Your task to perform on an android device: add a contact Image 0: 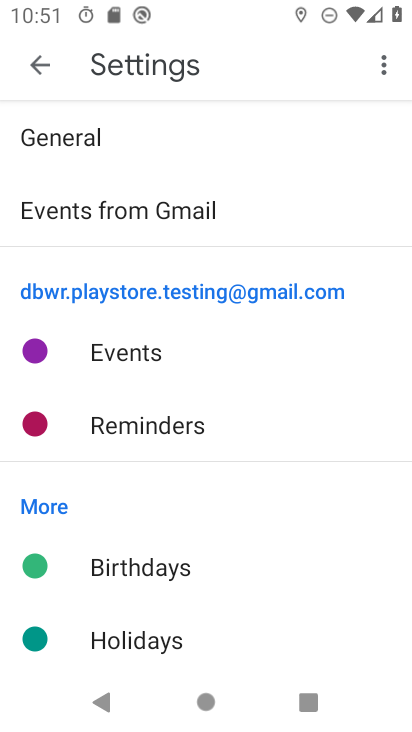
Step 0: press home button
Your task to perform on an android device: add a contact Image 1: 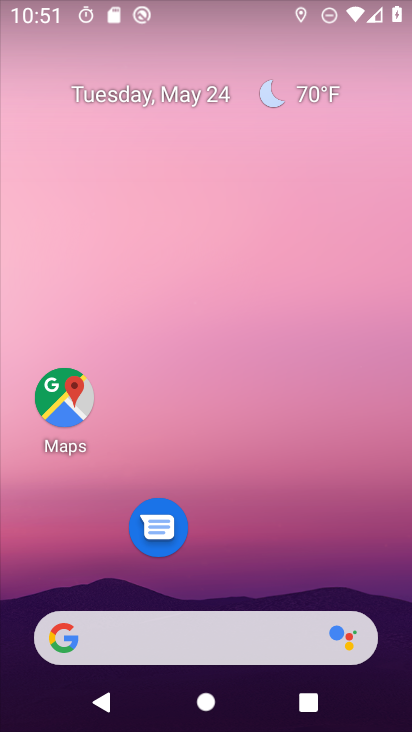
Step 1: drag from (287, 553) to (285, 58)
Your task to perform on an android device: add a contact Image 2: 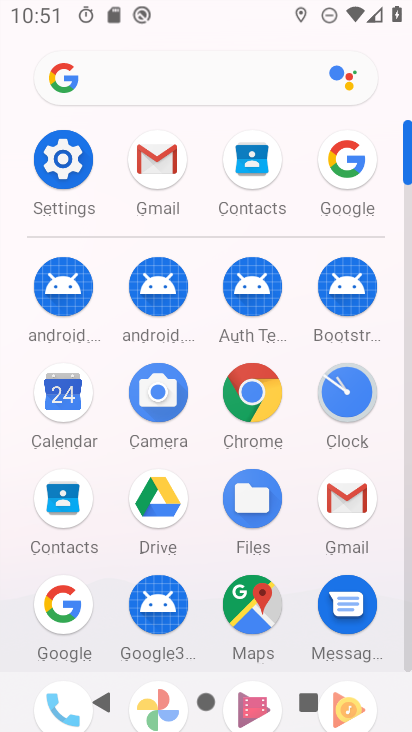
Step 2: click (62, 504)
Your task to perform on an android device: add a contact Image 3: 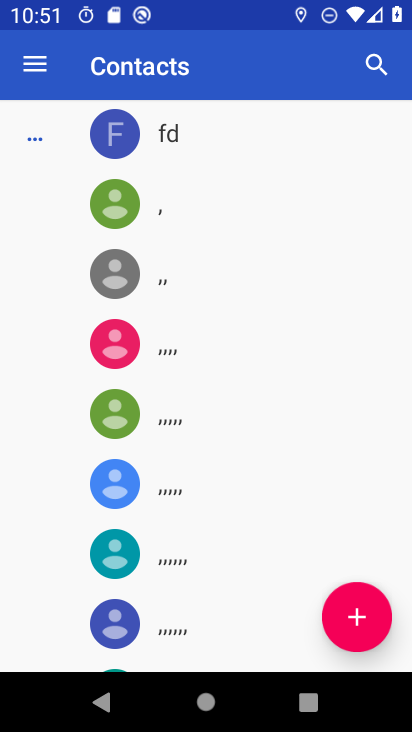
Step 3: click (364, 618)
Your task to perform on an android device: add a contact Image 4: 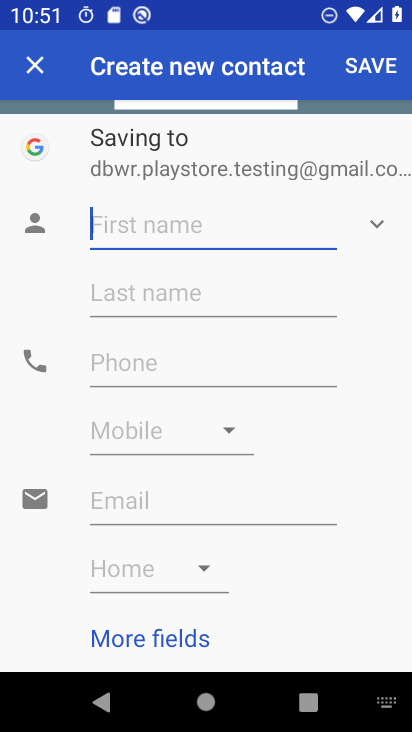
Step 4: click (212, 223)
Your task to perform on an android device: add a contact Image 5: 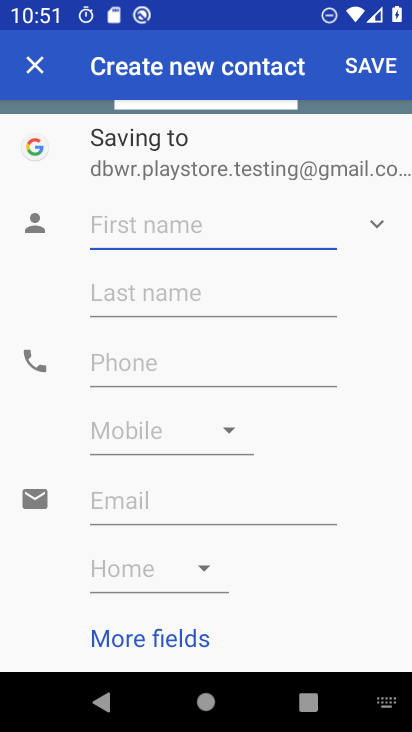
Step 5: type "jhfhj"
Your task to perform on an android device: add a contact Image 6: 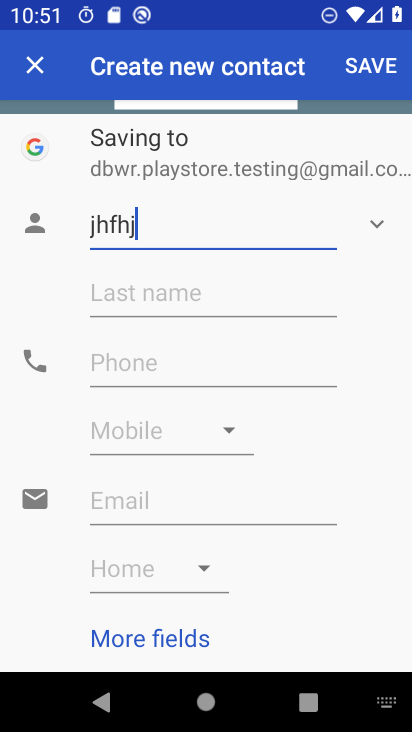
Step 6: click (362, 68)
Your task to perform on an android device: add a contact Image 7: 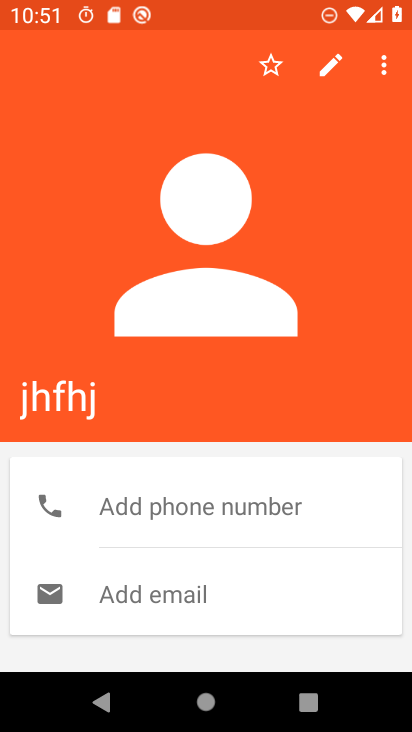
Step 7: task complete